Your task to perform on an android device: Go to Wikipedia Image 0: 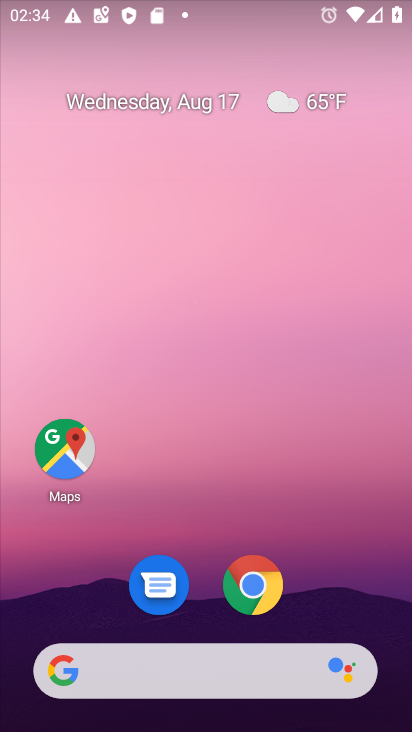
Step 0: click (256, 585)
Your task to perform on an android device: Go to Wikipedia Image 1: 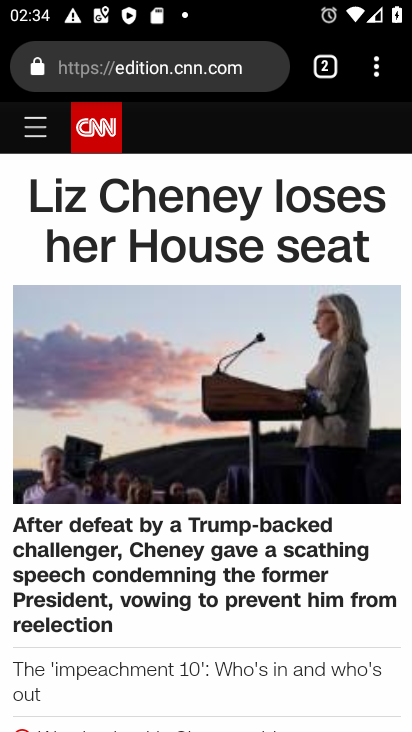
Step 1: press back button
Your task to perform on an android device: Go to Wikipedia Image 2: 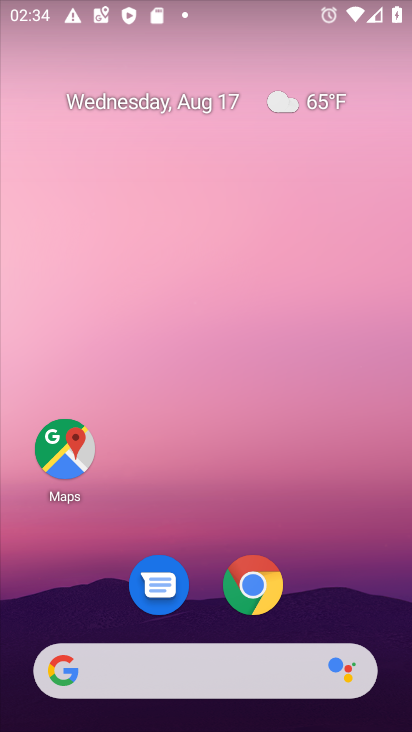
Step 2: click (251, 582)
Your task to perform on an android device: Go to Wikipedia Image 3: 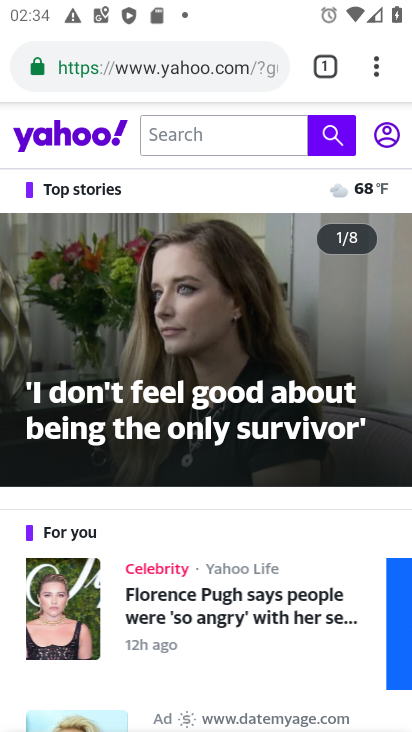
Step 3: click (371, 72)
Your task to perform on an android device: Go to Wikipedia Image 4: 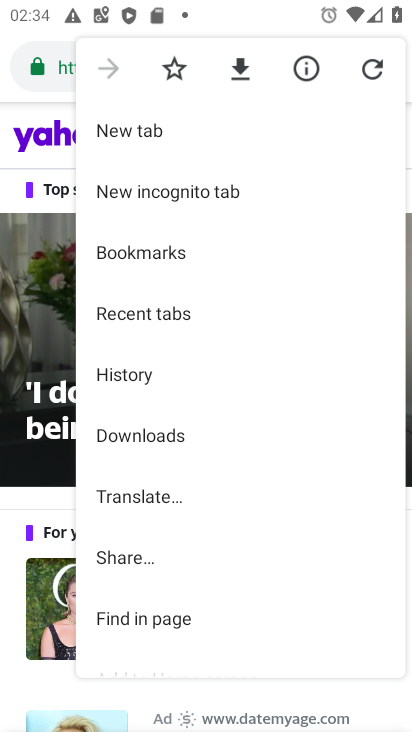
Step 4: click (257, 127)
Your task to perform on an android device: Go to Wikipedia Image 5: 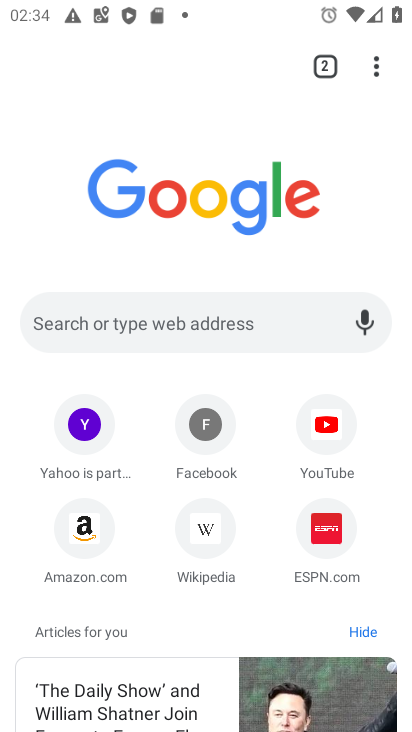
Step 5: click (205, 531)
Your task to perform on an android device: Go to Wikipedia Image 6: 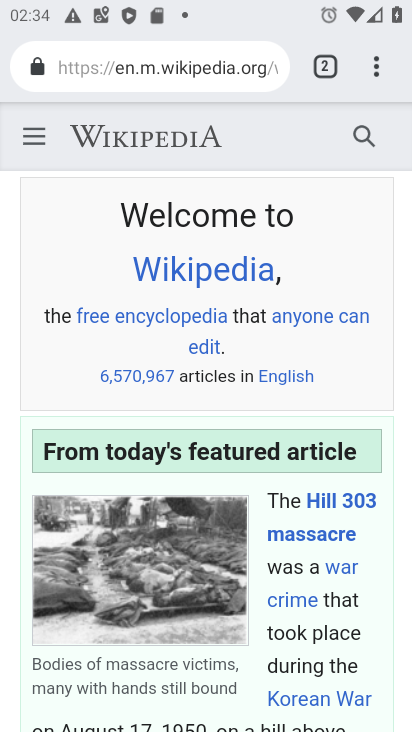
Step 6: task complete